Your task to perform on an android device: search for starred emails in the gmail app Image 0: 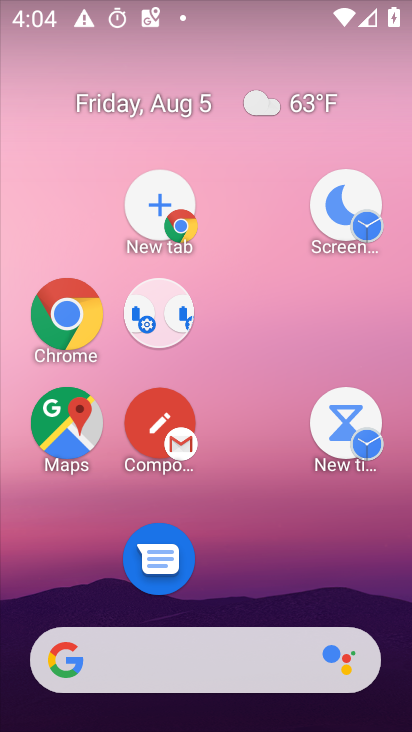
Step 0: drag from (252, 594) to (199, 308)
Your task to perform on an android device: search for starred emails in the gmail app Image 1: 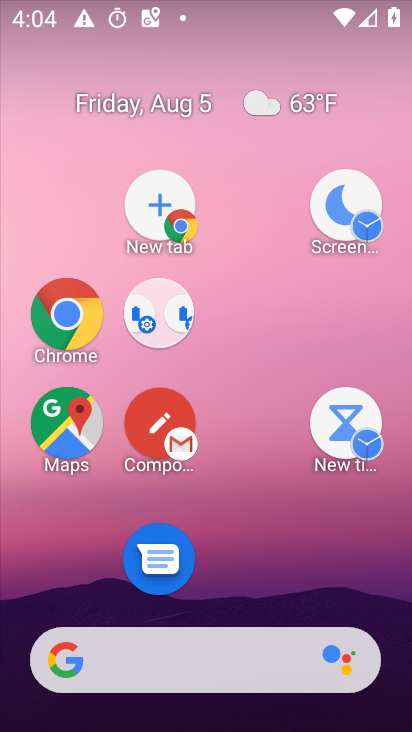
Step 1: drag from (241, 510) to (230, 226)
Your task to perform on an android device: search for starred emails in the gmail app Image 2: 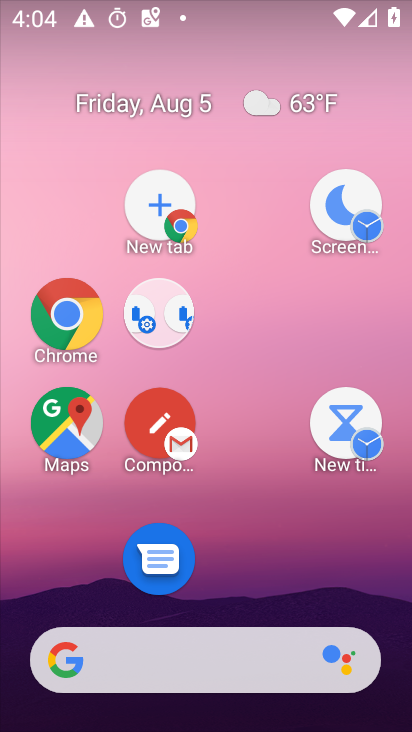
Step 2: drag from (231, 446) to (137, 131)
Your task to perform on an android device: search for starred emails in the gmail app Image 3: 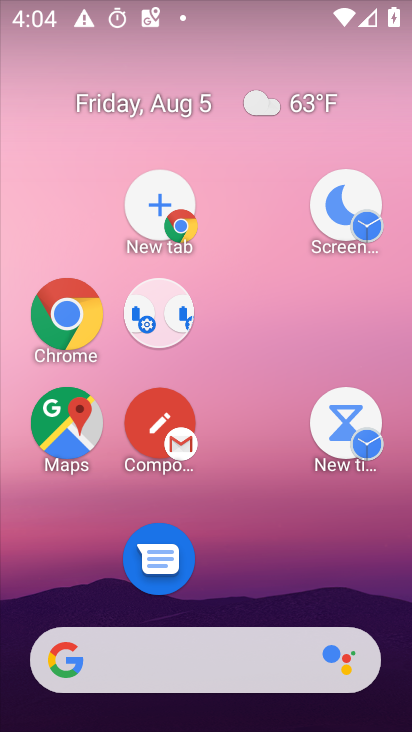
Step 3: drag from (274, 536) to (207, 60)
Your task to perform on an android device: search for starred emails in the gmail app Image 4: 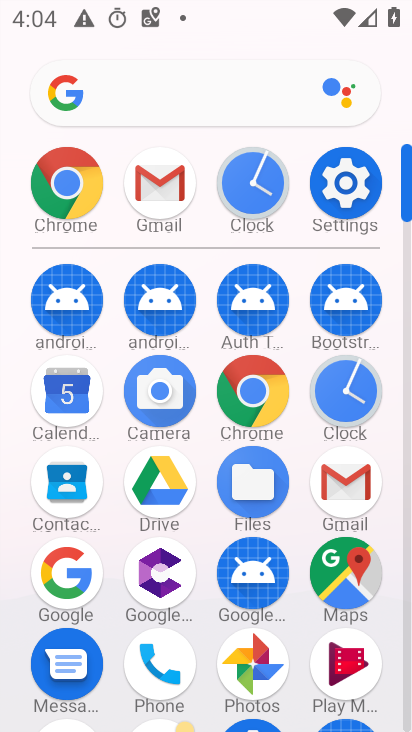
Step 4: click (332, 473)
Your task to perform on an android device: search for starred emails in the gmail app Image 5: 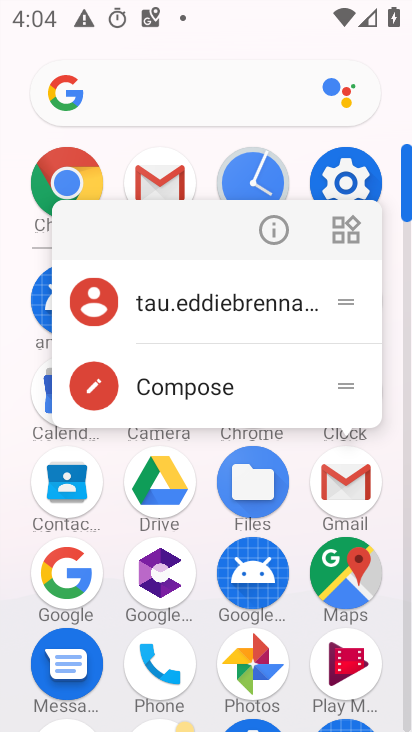
Step 5: click (340, 477)
Your task to perform on an android device: search for starred emails in the gmail app Image 6: 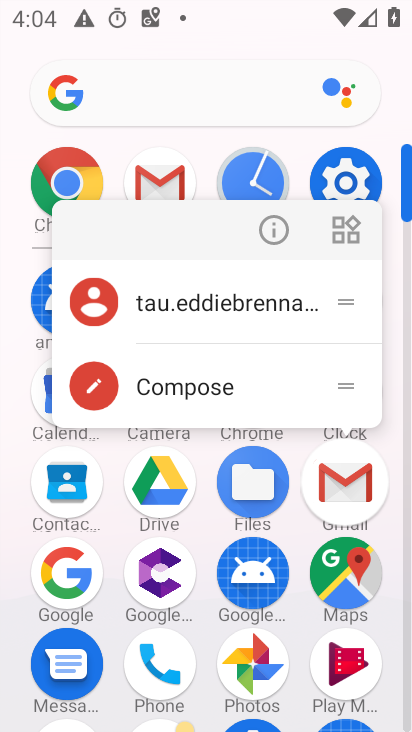
Step 6: click (342, 479)
Your task to perform on an android device: search for starred emails in the gmail app Image 7: 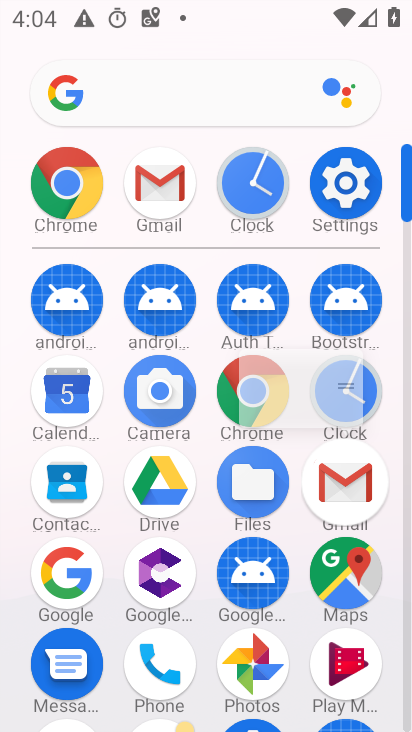
Step 7: click (349, 477)
Your task to perform on an android device: search for starred emails in the gmail app Image 8: 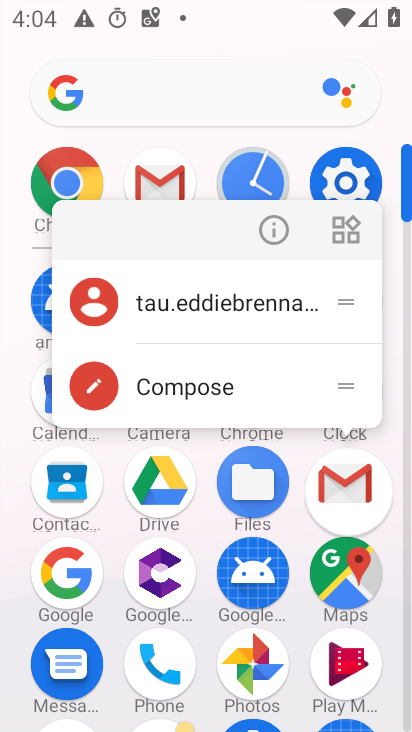
Step 8: click (353, 487)
Your task to perform on an android device: search for starred emails in the gmail app Image 9: 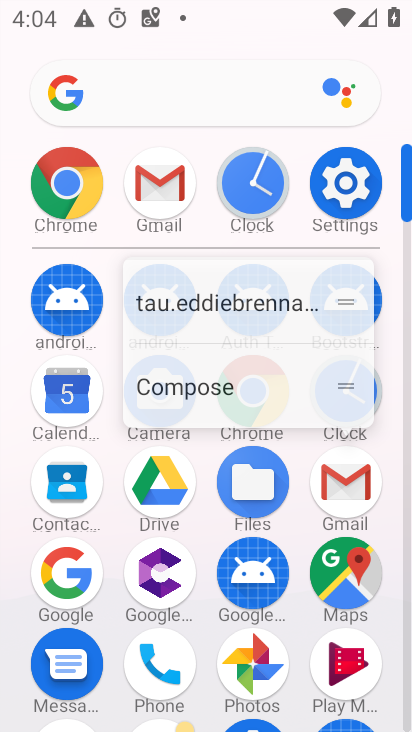
Step 9: click (352, 486)
Your task to perform on an android device: search for starred emails in the gmail app Image 10: 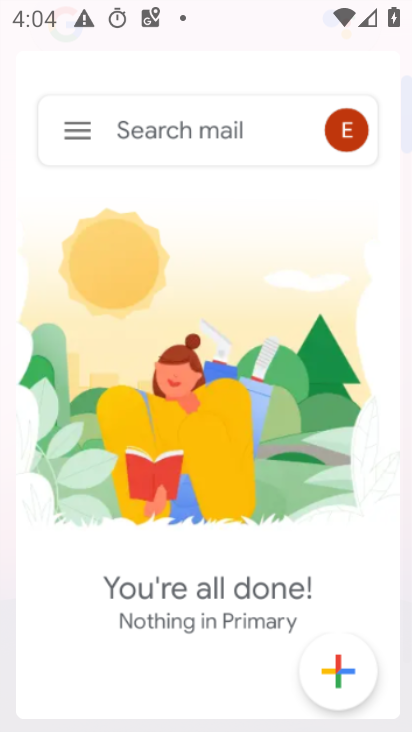
Step 10: click (342, 471)
Your task to perform on an android device: search for starred emails in the gmail app Image 11: 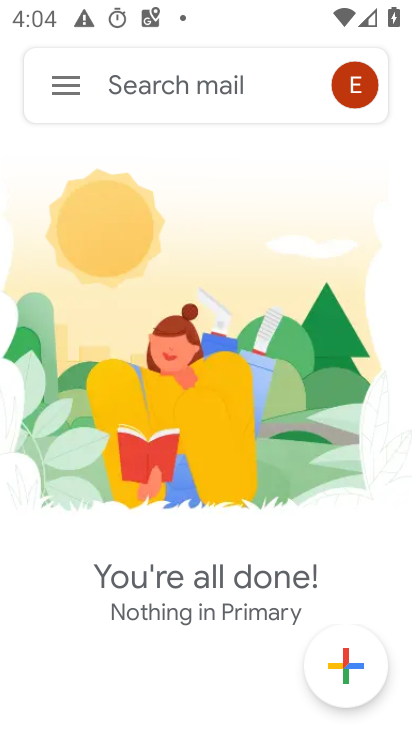
Step 11: drag from (62, 87) to (88, 124)
Your task to perform on an android device: search for starred emails in the gmail app Image 12: 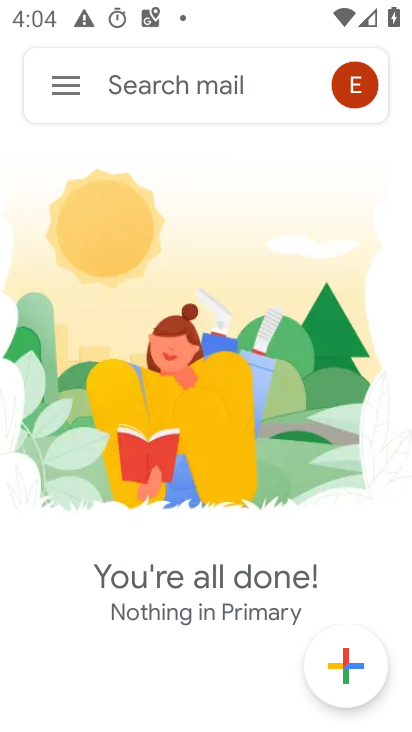
Step 12: click (68, 84)
Your task to perform on an android device: search for starred emails in the gmail app Image 13: 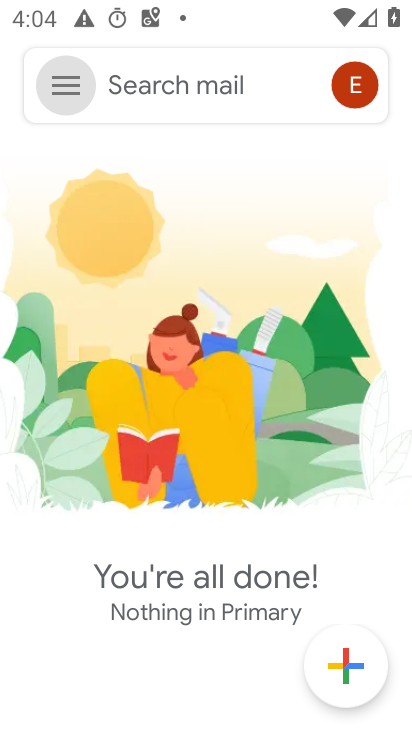
Step 13: click (70, 87)
Your task to perform on an android device: search for starred emails in the gmail app Image 14: 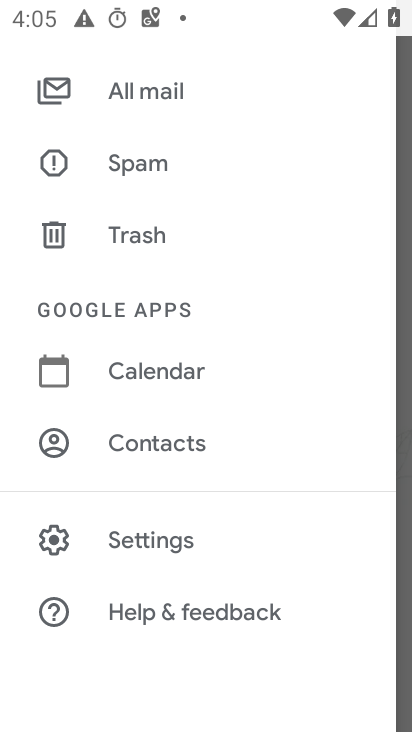
Step 14: drag from (131, 186) to (166, 449)
Your task to perform on an android device: search for starred emails in the gmail app Image 15: 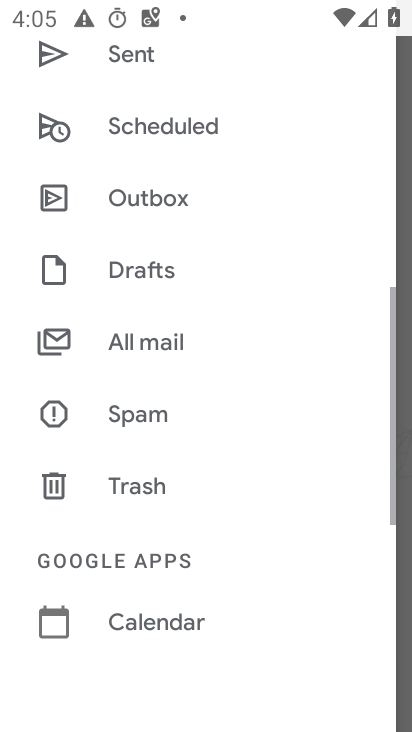
Step 15: drag from (259, 234) to (294, 546)
Your task to perform on an android device: search for starred emails in the gmail app Image 16: 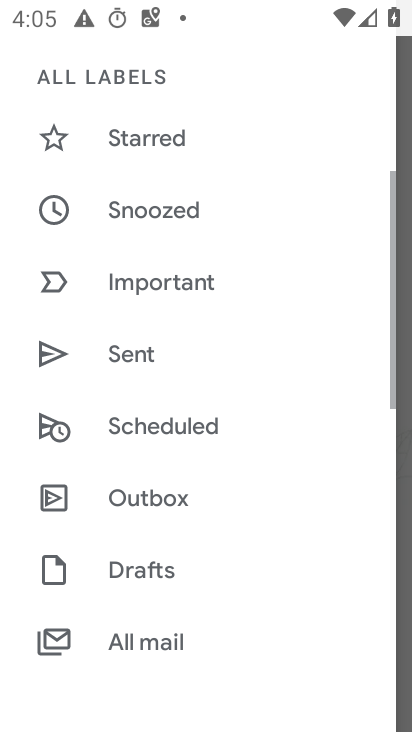
Step 16: drag from (240, 212) to (286, 543)
Your task to perform on an android device: search for starred emails in the gmail app Image 17: 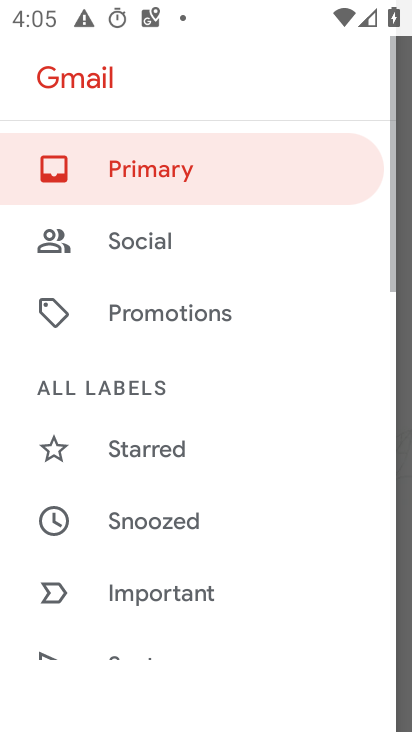
Step 17: click (204, 583)
Your task to perform on an android device: search for starred emails in the gmail app Image 18: 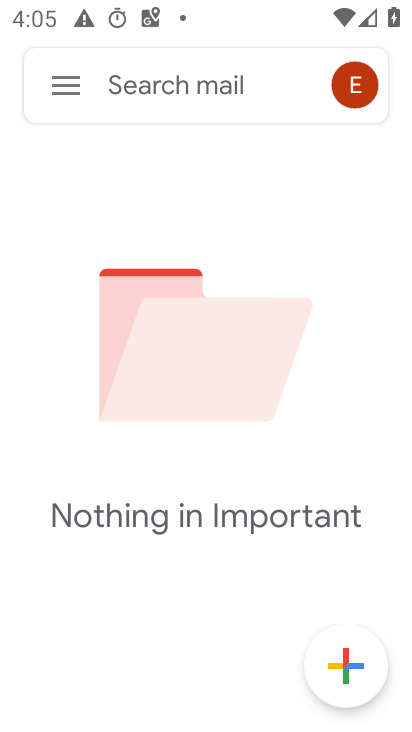
Step 18: click (58, 83)
Your task to perform on an android device: search for starred emails in the gmail app Image 19: 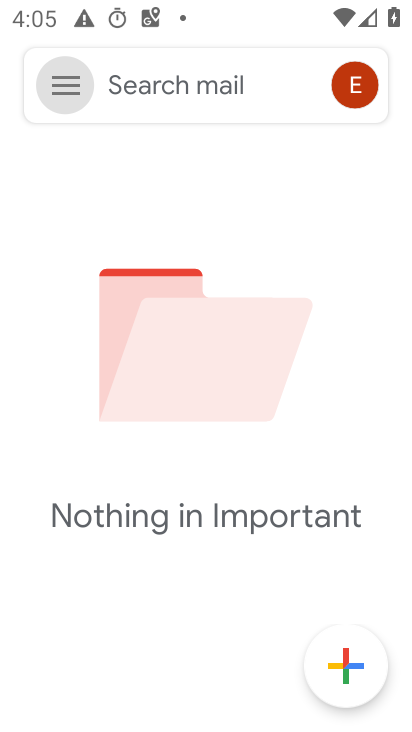
Step 19: click (60, 83)
Your task to perform on an android device: search for starred emails in the gmail app Image 20: 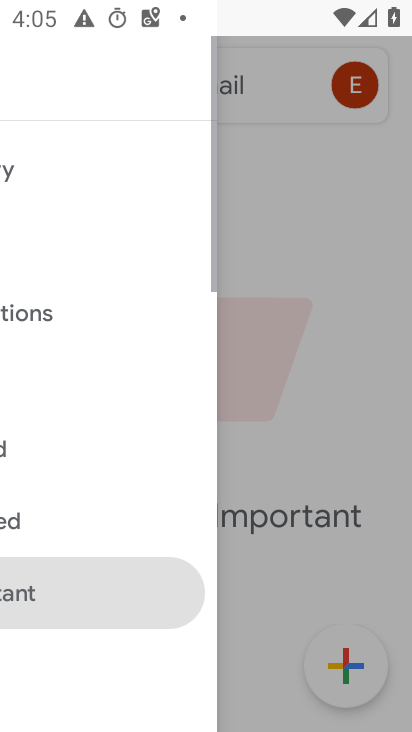
Step 20: click (60, 83)
Your task to perform on an android device: search for starred emails in the gmail app Image 21: 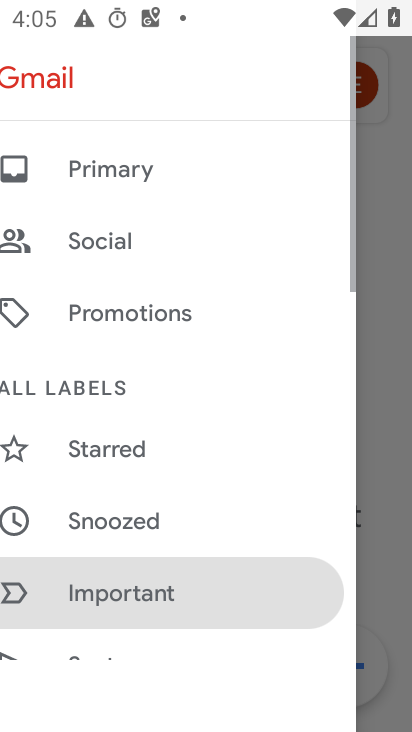
Step 21: click (60, 83)
Your task to perform on an android device: search for starred emails in the gmail app Image 22: 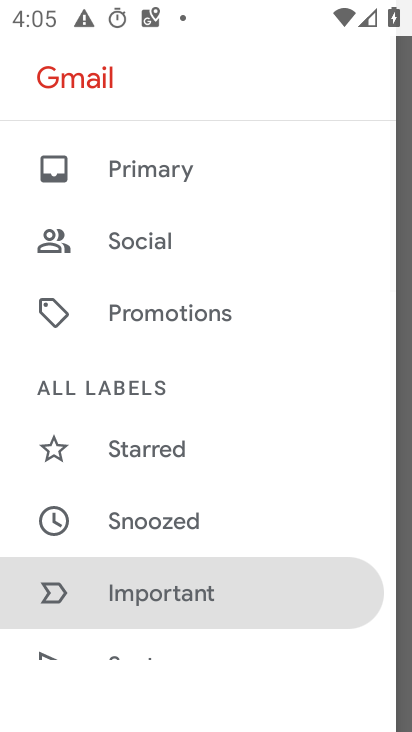
Step 22: click (125, 444)
Your task to perform on an android device: search for starred emails in the gmail app Image 23: 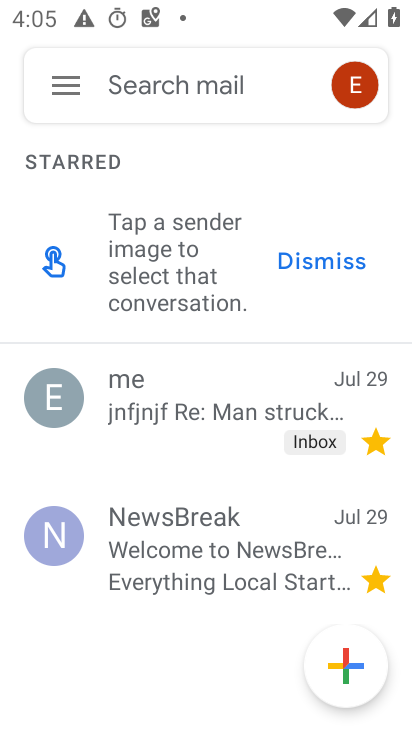
Step 23: task complete